Your task to perform on an android device: Open calendar and show me the fourth week of next month Image 0: 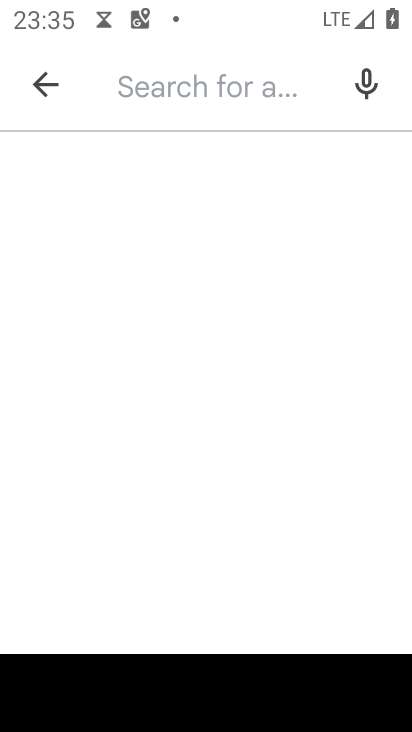
Step 0: press home button
Your task to perform on an android device: Open calendar and show me the fourth week of next month Image 1: 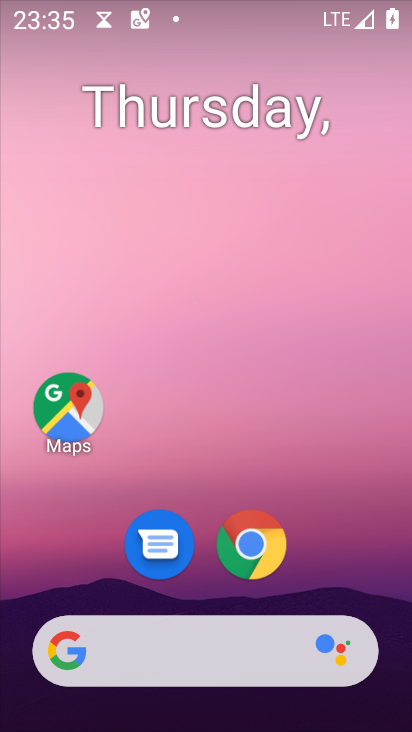
Step 1: drag from (322, 534) to (240, 216)
Your task to perform on an android device: Open calendar and show me the fourth week of next month Image 2: 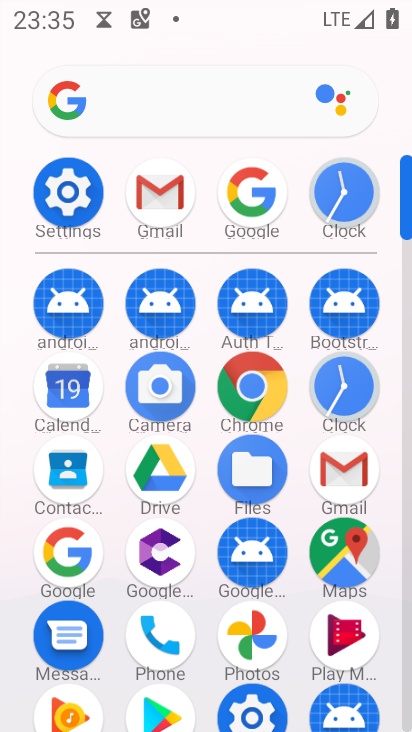
Step 2: click (64, 396)
Your task to perform on an android device: Open calendar and show me the fourth week of next month Image 3: 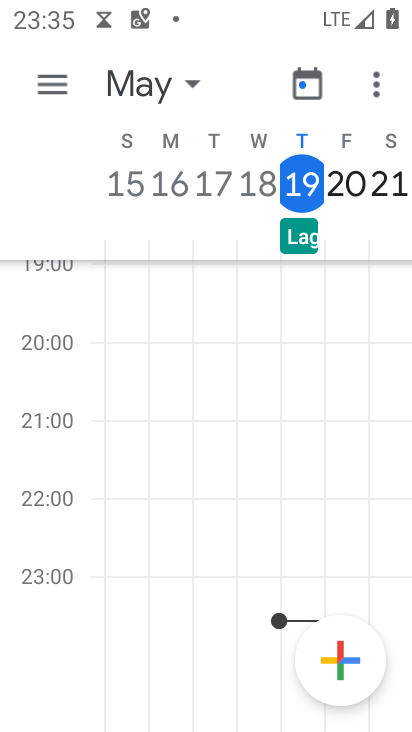
Step 3: click (143, 89)
Your task to perform on an android device: Open calendar and show me the fourth week of next month Image 4: 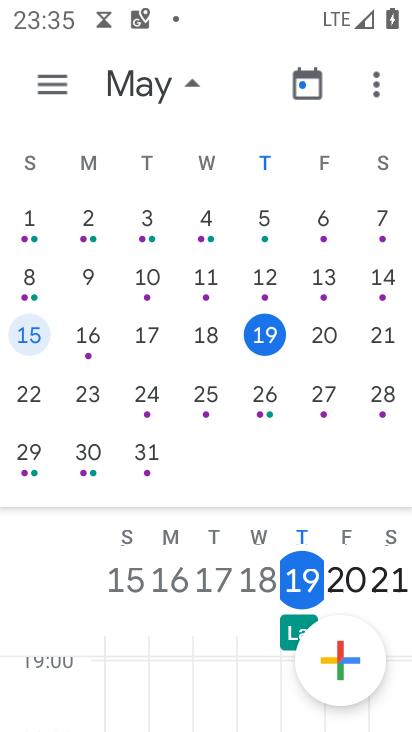
Step 4: drag from (312, 357) to (39, 378)
Your task to perform on an android device: Open calendar and show me the fourth week of next month Image 5: 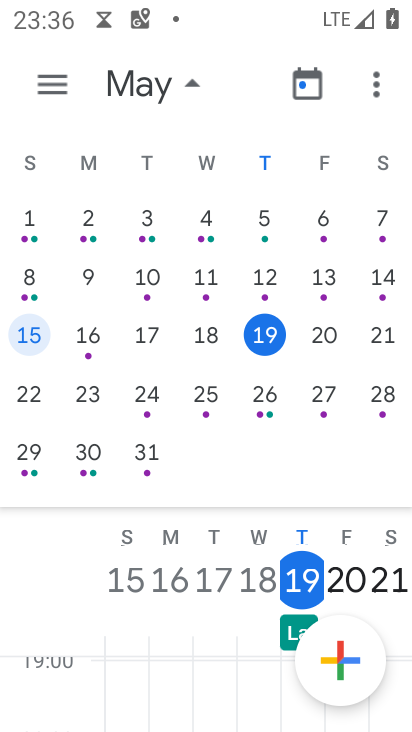
Step 5: drag from (348, 336) to (4, 352)
Your task to perform on an android device: Open calendar and show me the fourth week of next month Image 6: 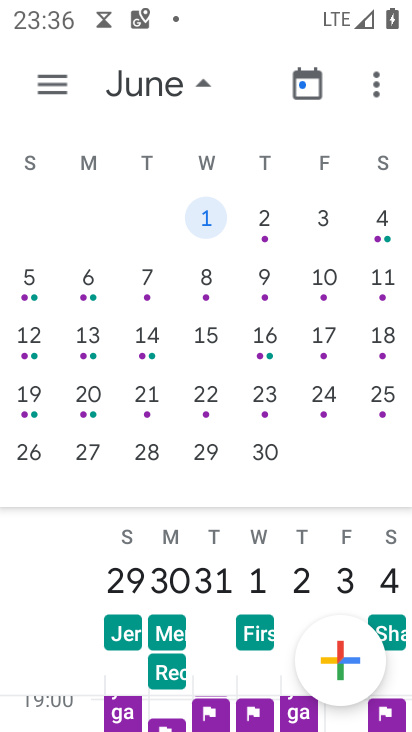
Step 6: click (29, 399)
Your task to perform on an android device: Open calendar and show me the fourth week of next month Image 7: 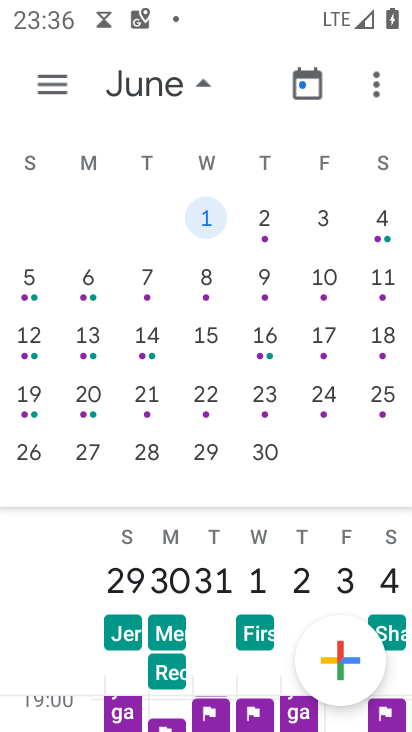
Step 7: click (29, 393)
Your task to perform on an android device: Open calendar and show me the fourth week of next month Image 8: 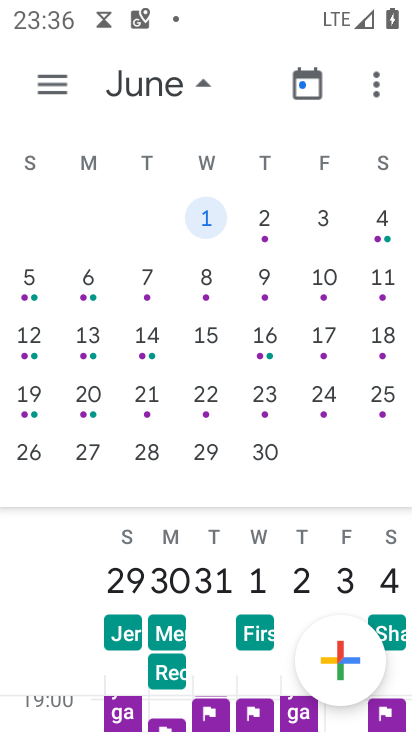
Step 8: click (30, 383)
Your task to perform on an android device: Open calendar and show me the fourth week of next month Image 9: 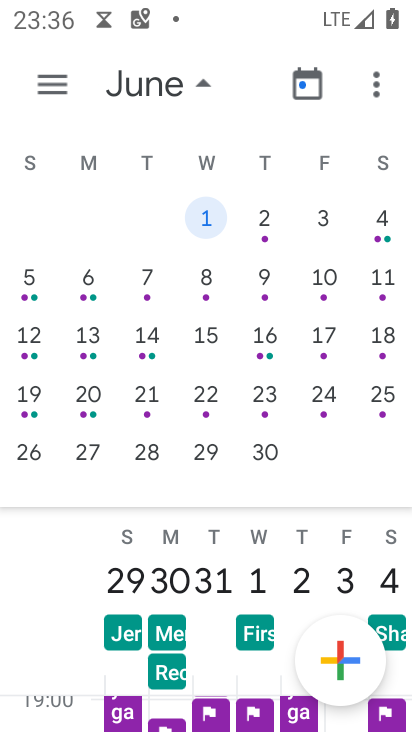
Step 9: click (35, 394)
Your task to perform on an android device: Open calendar and show me the fourth week of next month Image 10: 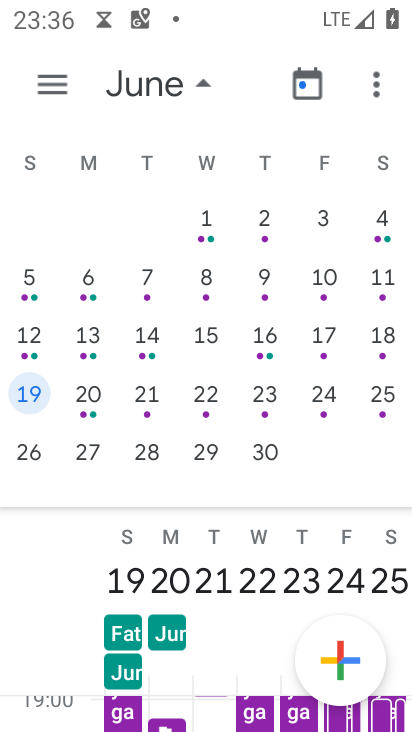
Step 10: click (150, 72)
Your task to perform on an android device: Open calendar and show me the fourth week of next month Image 11: 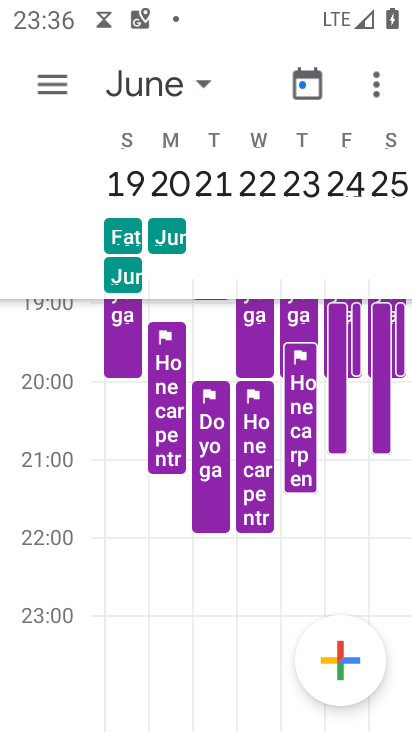
Step 11: task complete